Your task to perform on an android device: clear all cookies in the chrome app Image 0: 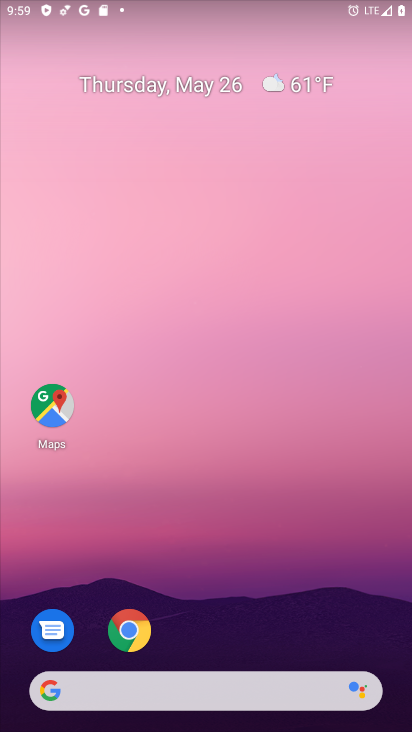
Step 0: drag from (224, 652) to (182, 294)
Your task to perform on an android device: clear all cookies in the chrome app Image 1: 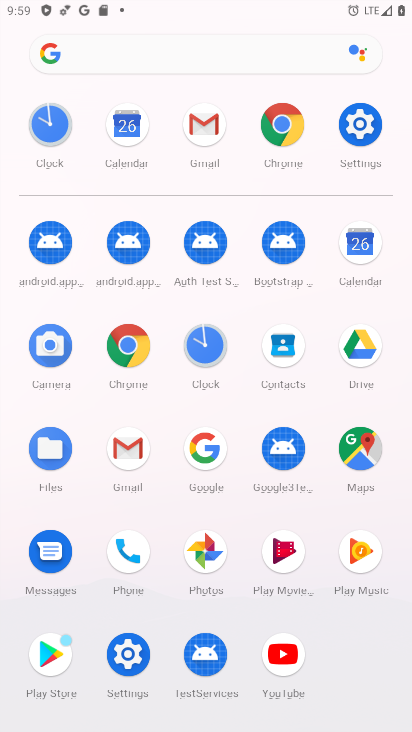
Step 1: click (144, 345)
Your task to perform on an android device: clear all cookies in the chrome app Image 2: 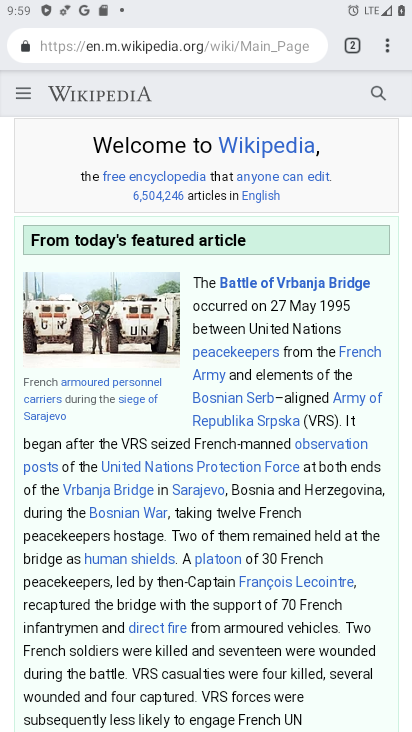
Step 2: click (389, 42)
Your task to perform on an android device: clear all cookies in the chrome app Image 3: 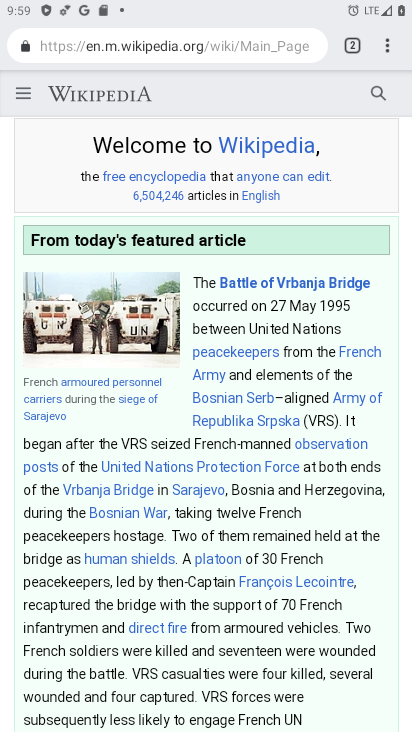
Step 3: click (389, 42)
Your task to perform on an android device: clear all cookies in the chrome app Image 4: 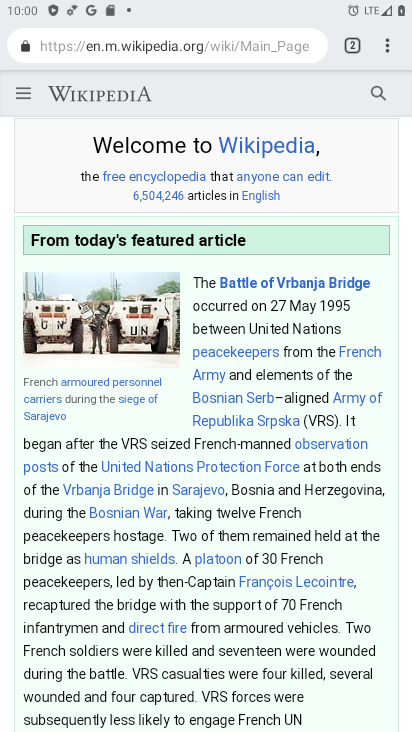
Step 4: click (385, 44)
Your task to perform on an android device: clear all cookies in the chrome app Image 5: 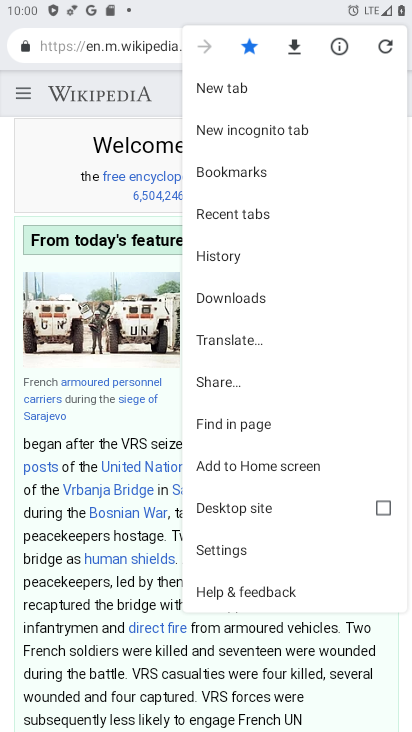
Step 5: click (228, 549)
Your task to perform on an android device: clear all cookies in the chrome app Image 6: 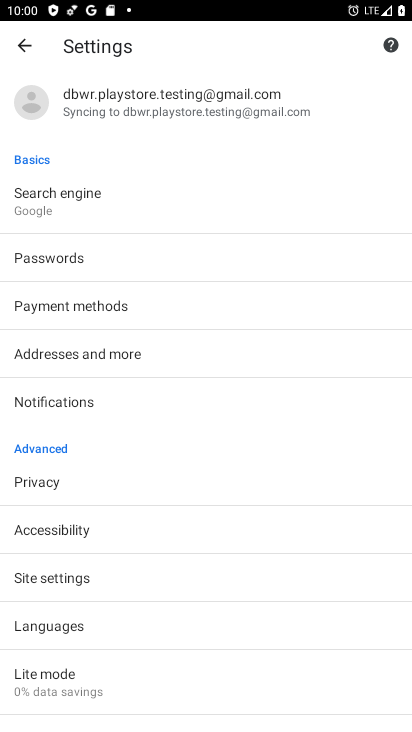
Step 6: click (38, 475)
Your task to perform on an android device: clear all cookies in the chrome app Image 7: 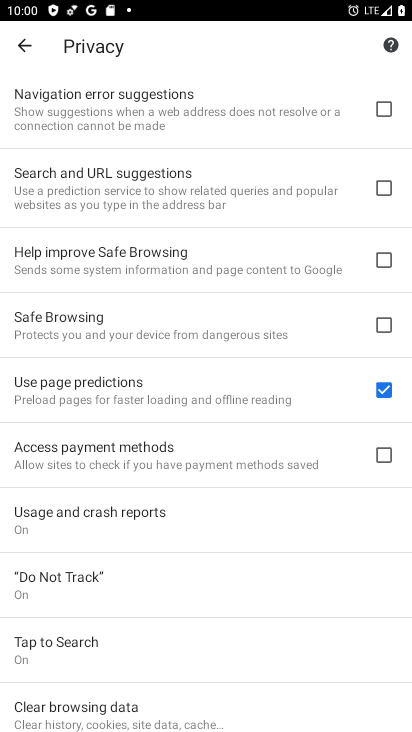
Step 7: drag from (157, 555) to (151, 358)
Your task to perform on an android device: clear all cookies in the chrome app Image 8: 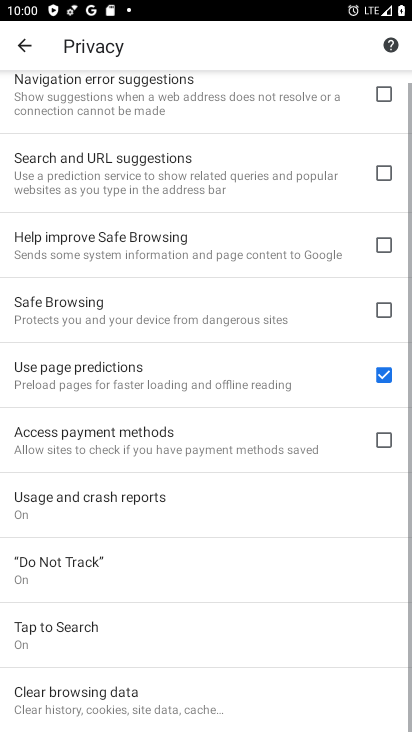
Step 8: click (114, 696)
Your task to perform on an android device: clear all cookies in the chrome app Image 9: 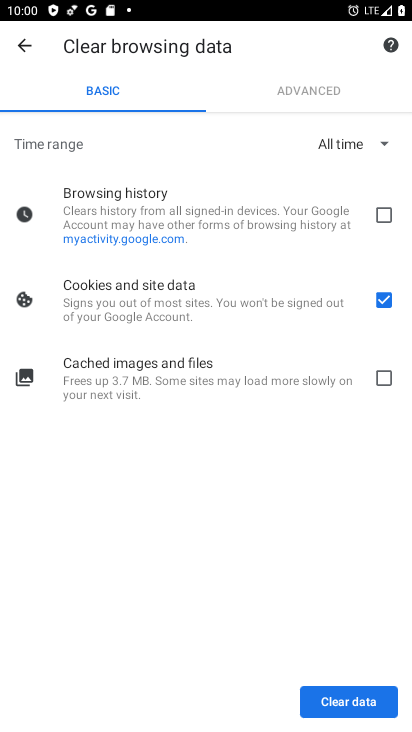
Step 9: click (162, 356)
Your task to perform on an android device: clear all cookies in the chrome app Image 10: 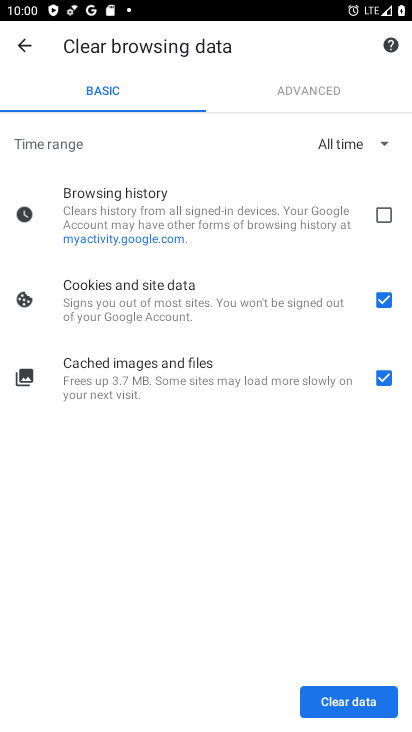
Step 10: click (357, 699)
Your task to perform on an android device: clear all cookies in the chrome app Image 11: 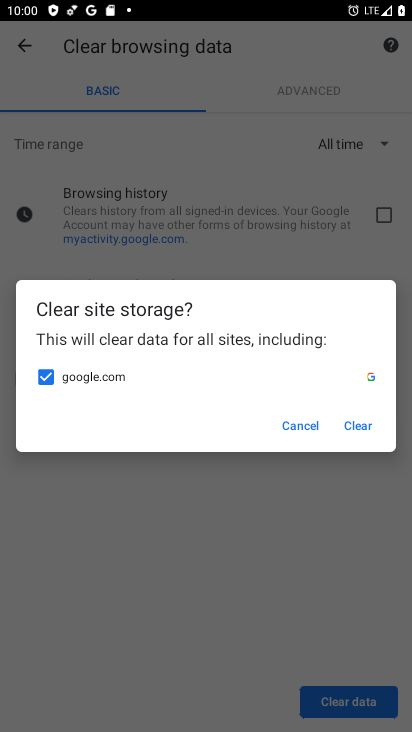
Step 11: click (353, 418)
Your task to perform on an android device: clear all cookies in the chrome app Image 12: 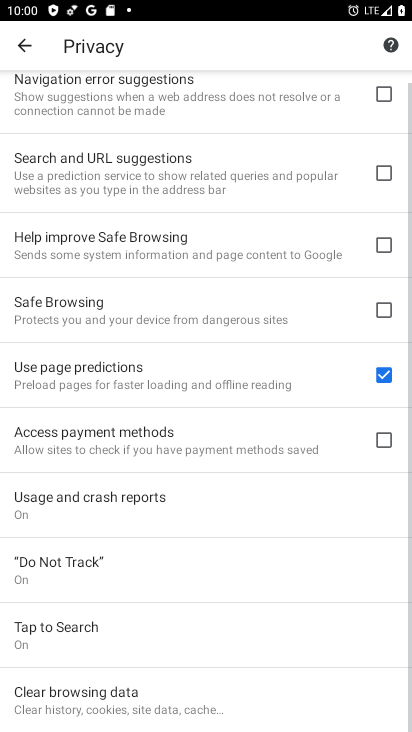
Step 12: task complete